Your task to perform on an android device: Go to CNN.com Image 0: 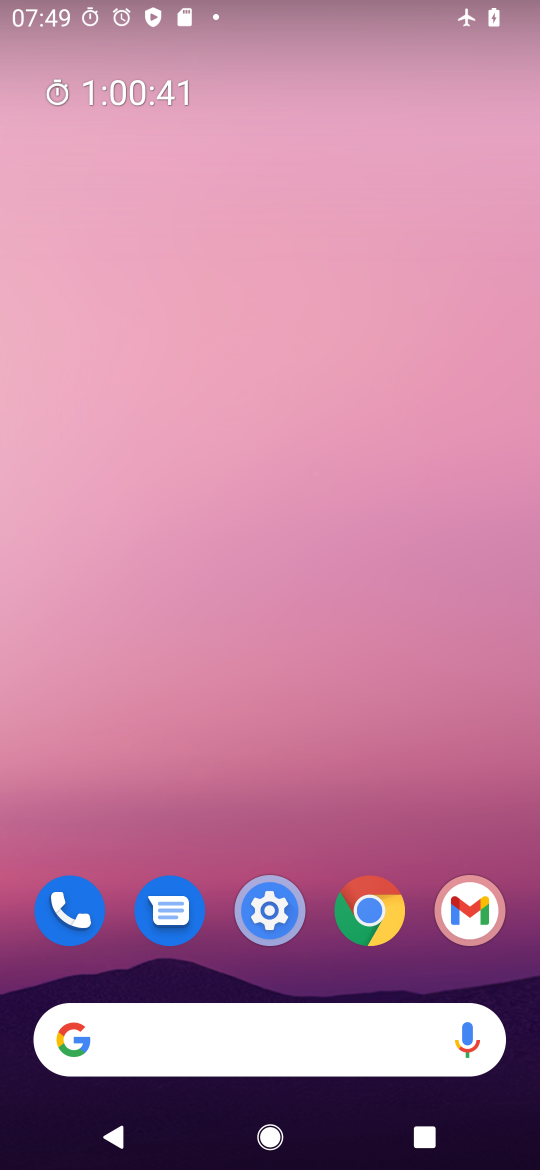
Step 0: drag from (370, 1010) to (160, 257)
Your task to perform on an android device: Go to CNN.com Image 1: 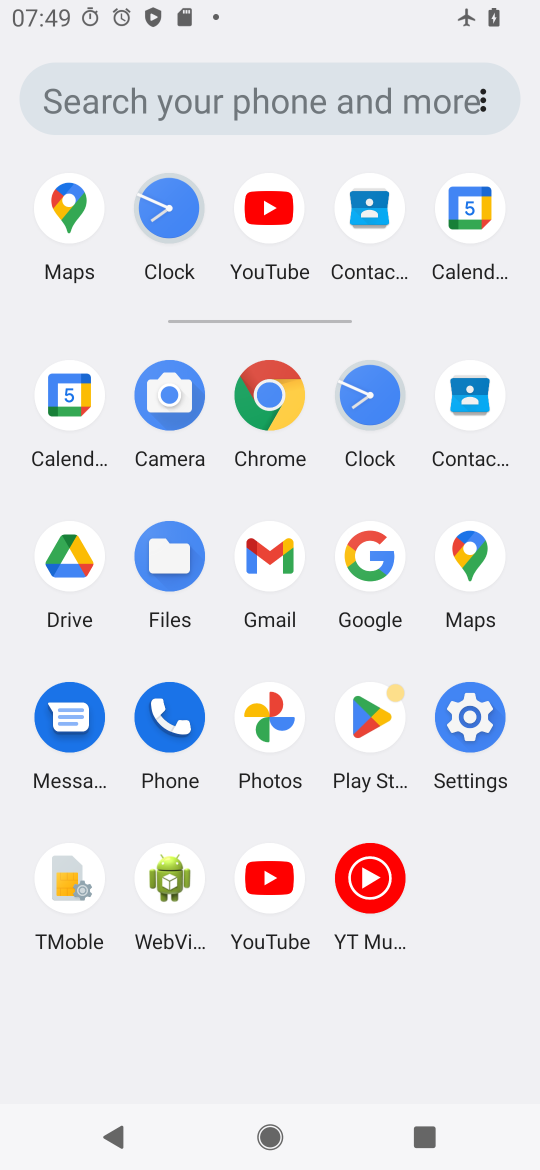
Step 1: click (282, 409)
Your task to perform on an android device: Go to CNN.com Image 2: 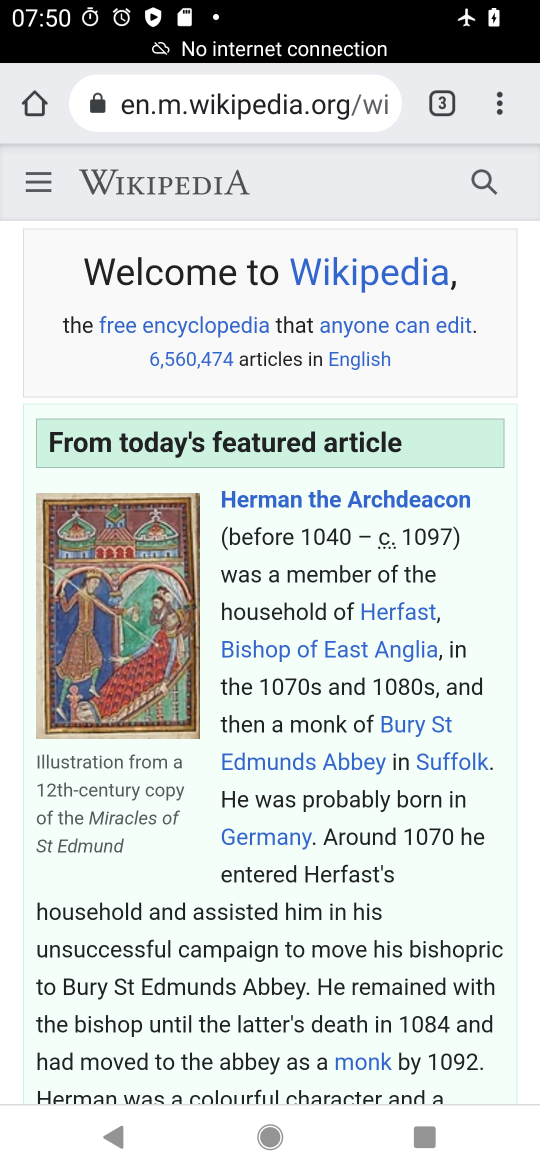
Step 2: click (305, 99)
Your task to perform on an android device: Go to CNN.com Image 3: 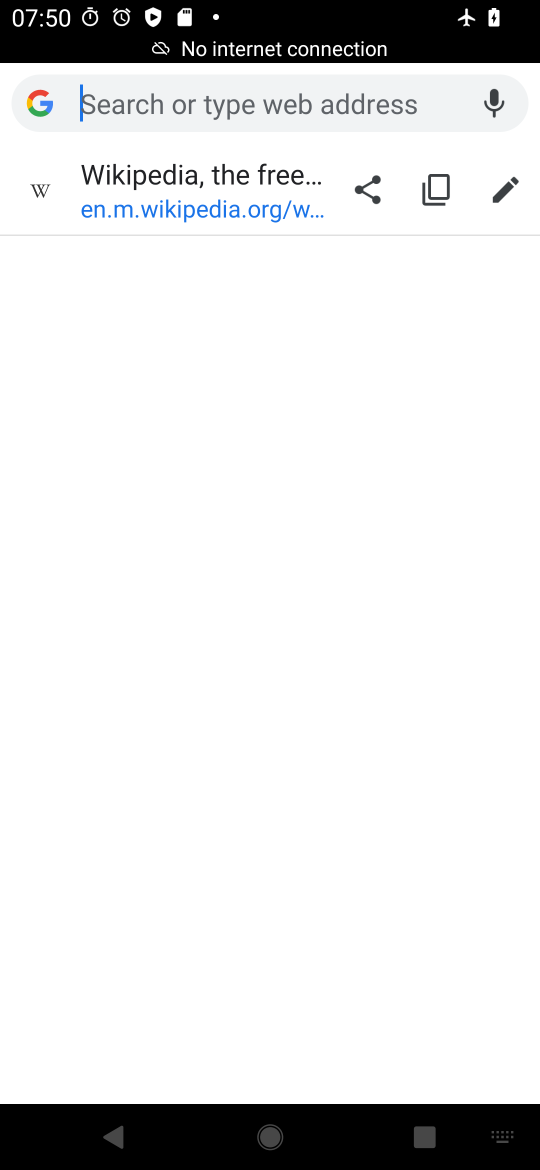
Step 3: type "cnn.com"
Your task to perform on an android device: Go to CNN.com Image 4: 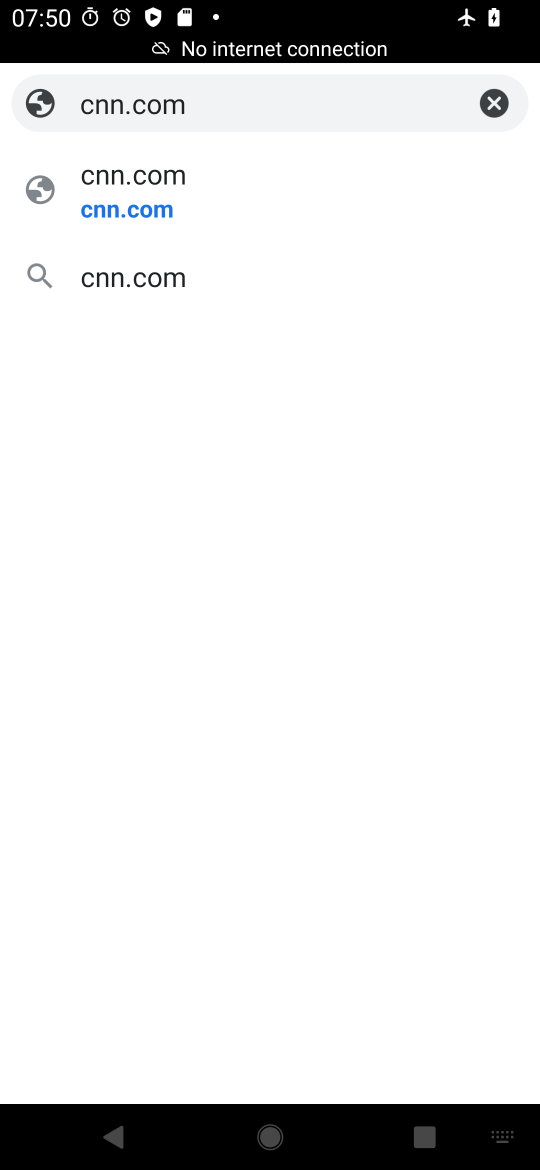
Step 4: click (130, 189)
Your task to perform on an android device: Go to CNN.com Image 5: 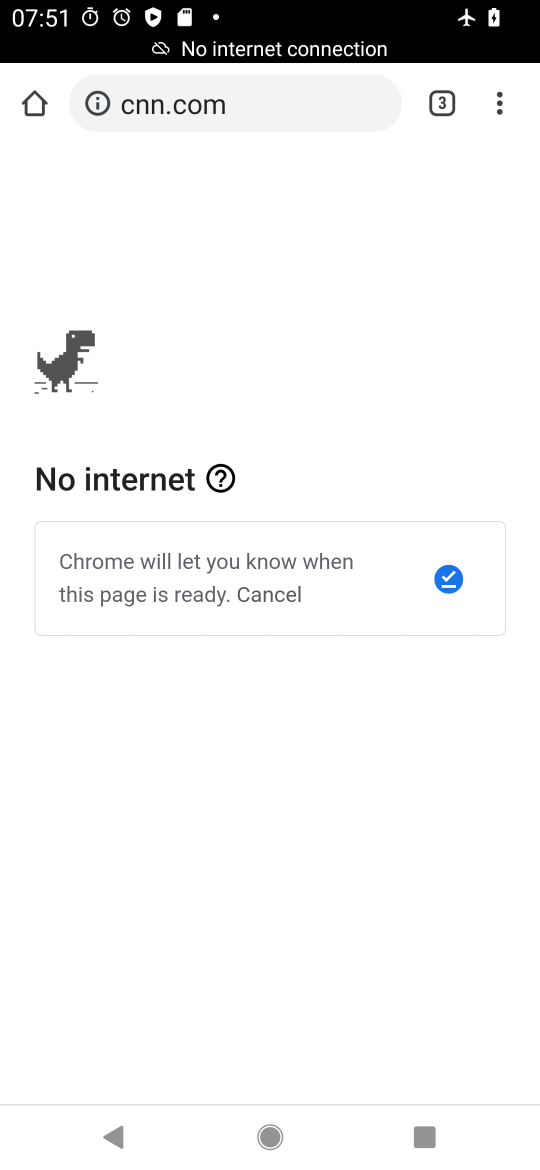
Step 5: task complete